Your task to perform on an android device: Is it going to rain tomorrow? Image 0: 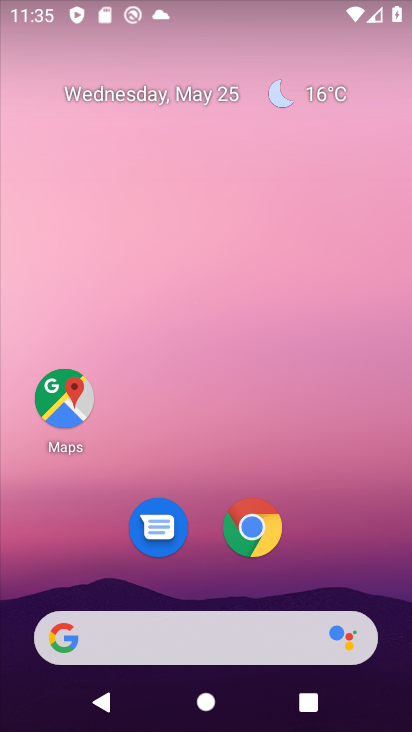
Step 0: click (283, 525)
Your task to perform on an android device: Is it going to rain tomorrow? Image 1: 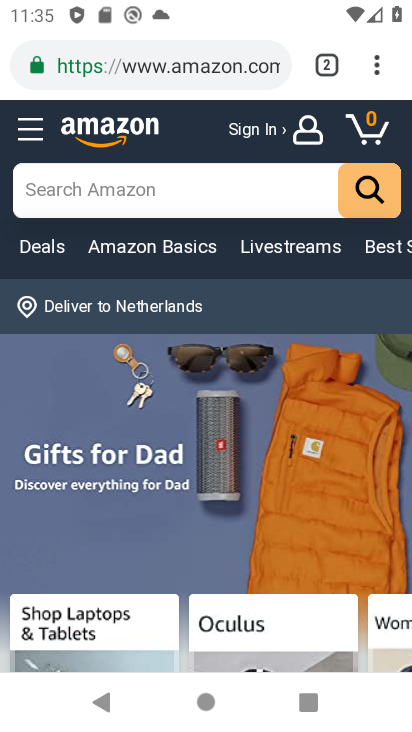
Step 1: click (163, 67)
Your task to perform on an android device: Is it going to rain tomorrow? Image 2: 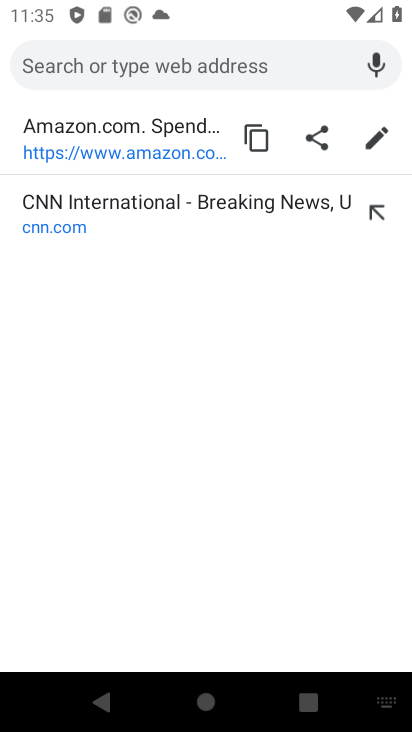
Step 2: type "Is it going to rain tomorrow?"
Your task to perform on an android device: Is it going to rain tomorrow? Image 3: 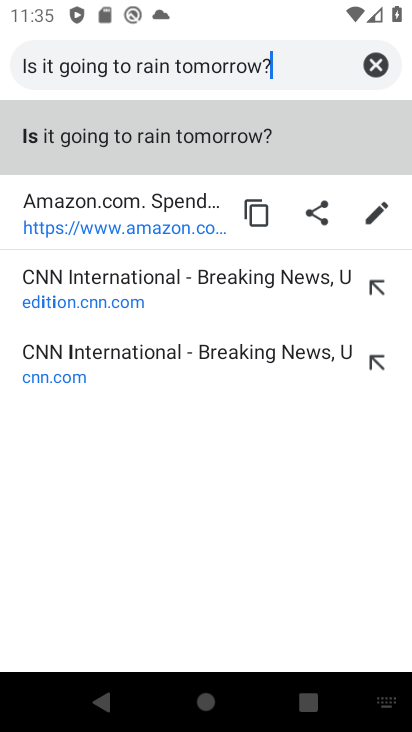
Step 3: click (168, 146)
Your task to perform on an android device: Is it going to rain tomorrow? Image 4: 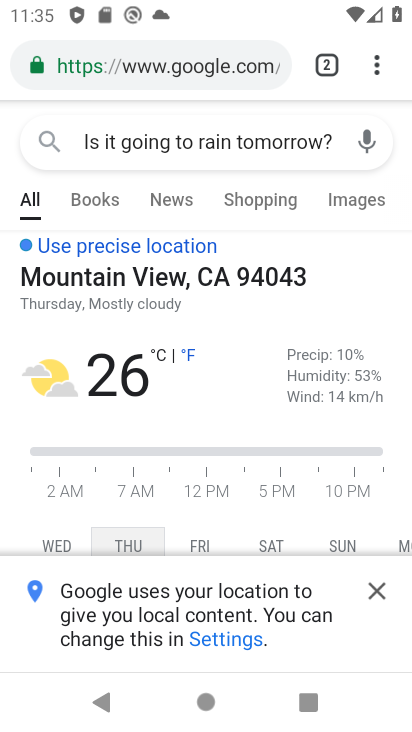
Step 4: task complete